Your task to perform on an android device: open chrome privacy settings Image 0: 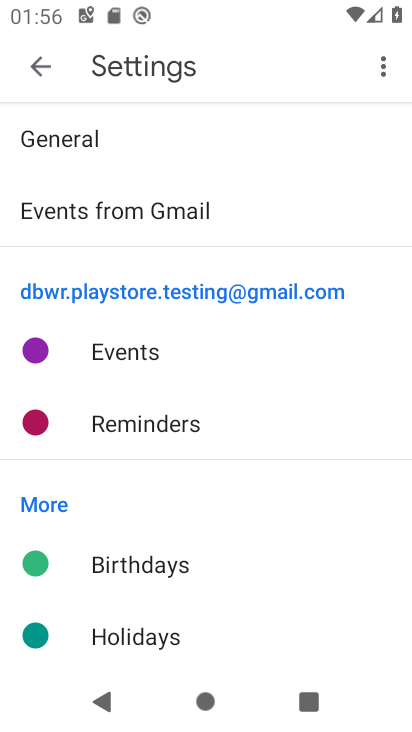
Step 0: press home button
Your task to perform on an android device: open chrome privacy settings Image 1: 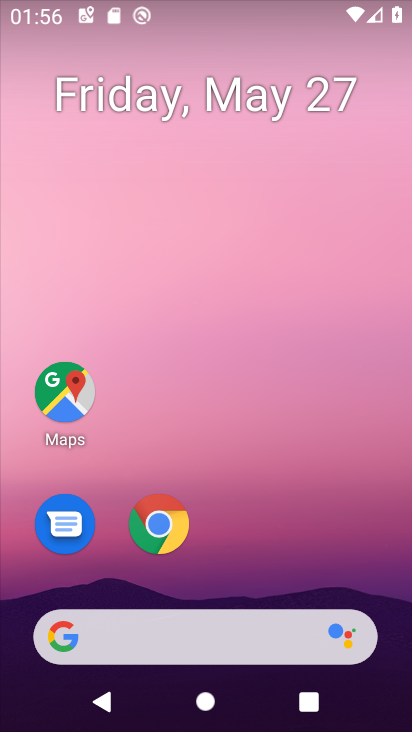
Step 1: click (159, 522)
Your task to perform on an android device: open chrome privacy settings Image 2: 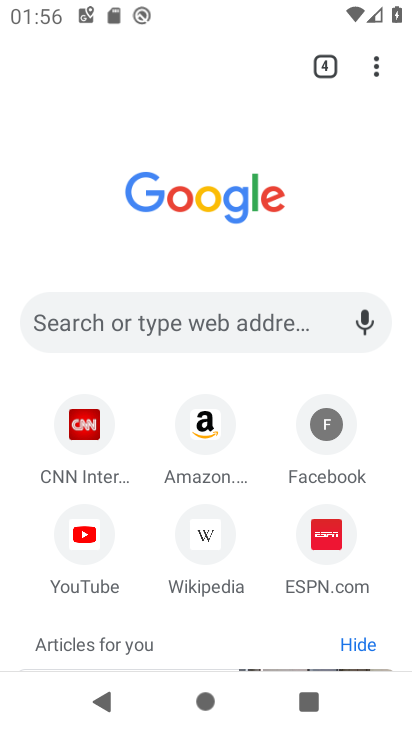
Step 2: click (371, 62)
Your task to perform on an android device: open chrome privacy settings Image 3: 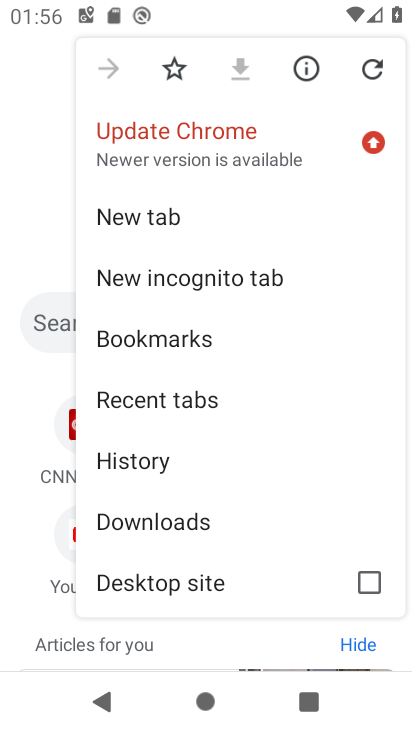
Step 3: drag from (267, 537) to (296, 296)
Your task to perform on an android device: open chrome privacy settings Image 4: 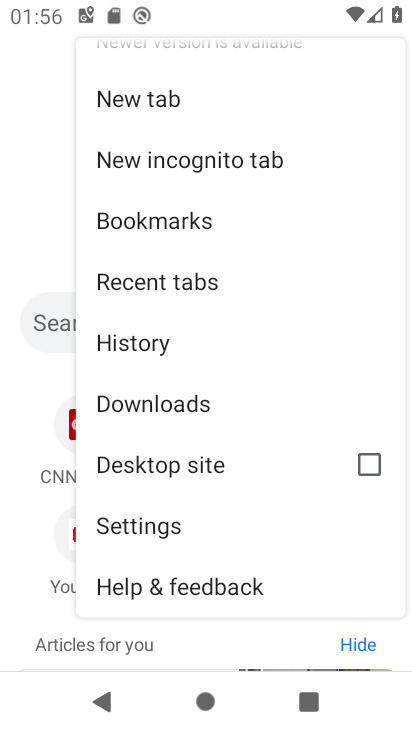
Step 4: click (179, 526)
Your task to perform on an android device: open chrome privacy settings Image 5: 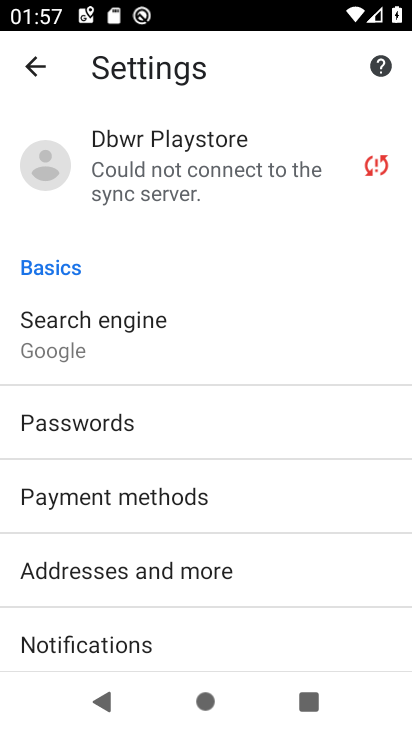
Step 5: drag from (241, 540) to (260, 209)
Your task to perform on an android device: open chrome privacy settings Image 6: 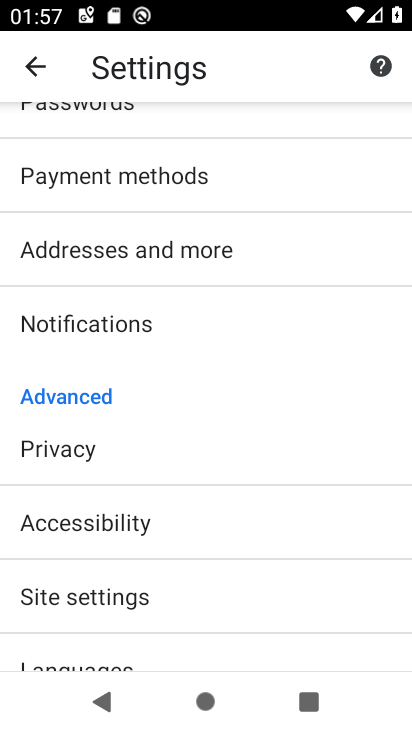
Step 6: click (116, 450)
Your task to perform on an android device: open chrome privacy settings Image 7: 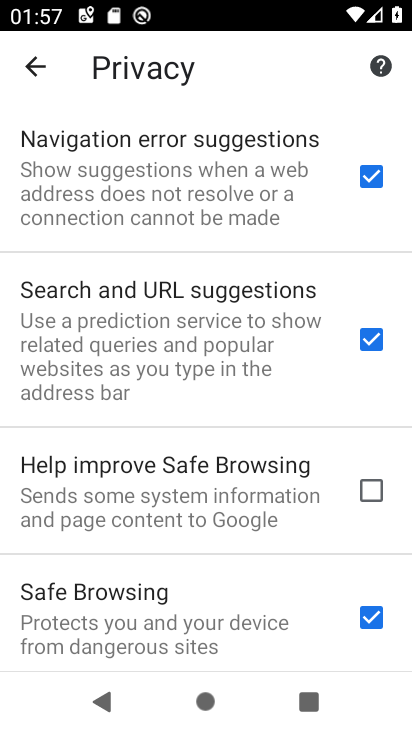
Step 7: task complete